Your task to perform on an android device: Open settings on Google Maps Image 0: 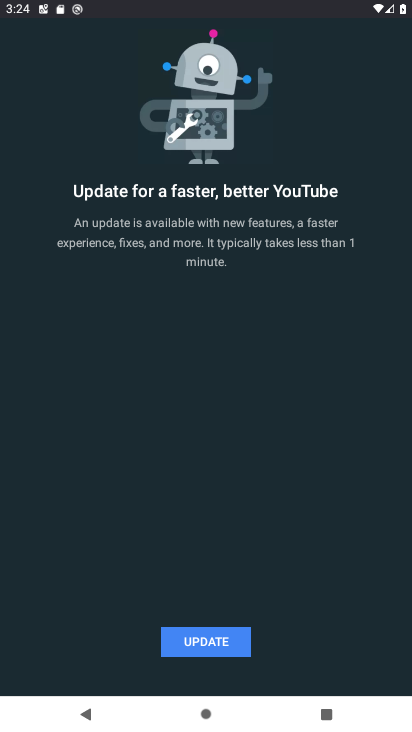
Step 0: press home button
Your task to perform on an android device: Open settings on Google Maps Image 1: 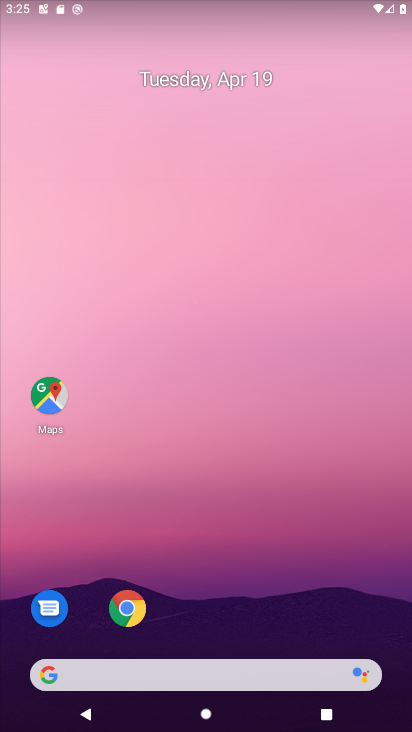
Step 1: drag from (264, 613) to (256, 130)
Your task to perform on an android device: Open settings on Google Maps Image 2: 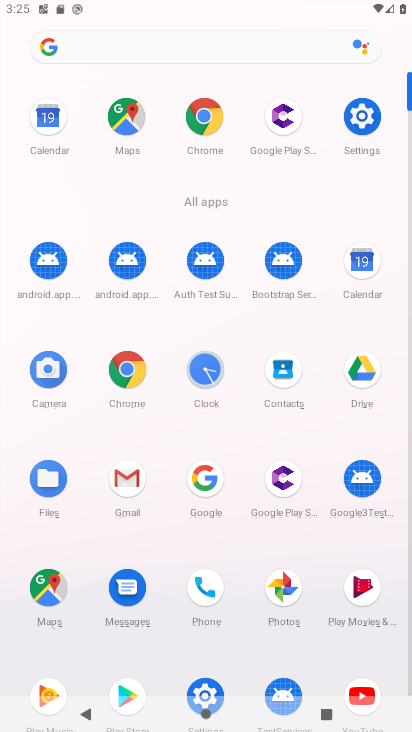
Step 2: click (52, 586)
Your task to perform on an android device: Open settings on Google Maps Image 3: 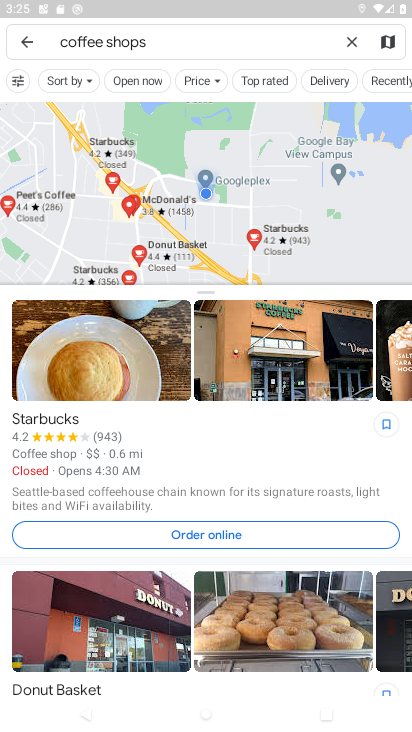
Step 3: click (20, 34)
Your task to perform on an android device: Open settings on Google Maps Image 4: 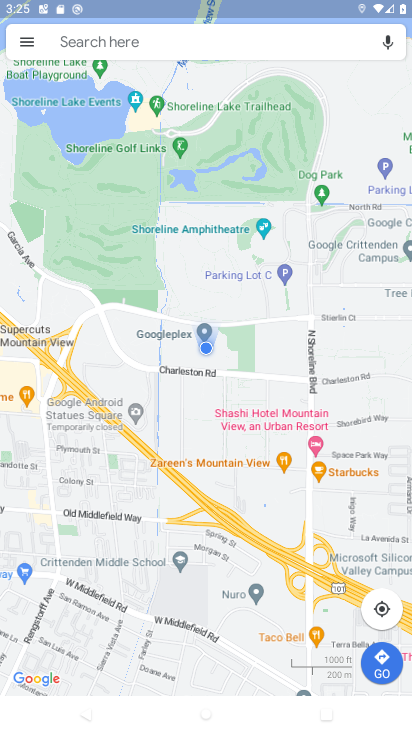
Step 4: click (25, 38)
Your task to perform on an android device: Open settings on Google Maps Image 5: 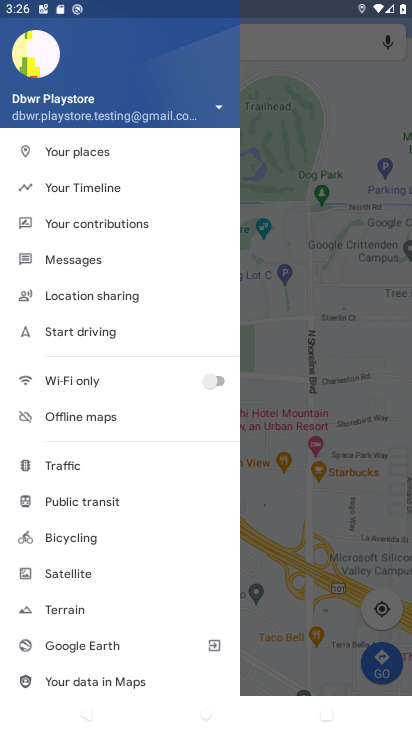
Step 5: drag from (83, 628) to (114, 277)
Your task to perform on an android device: Open settings on Google Maps Image 6: 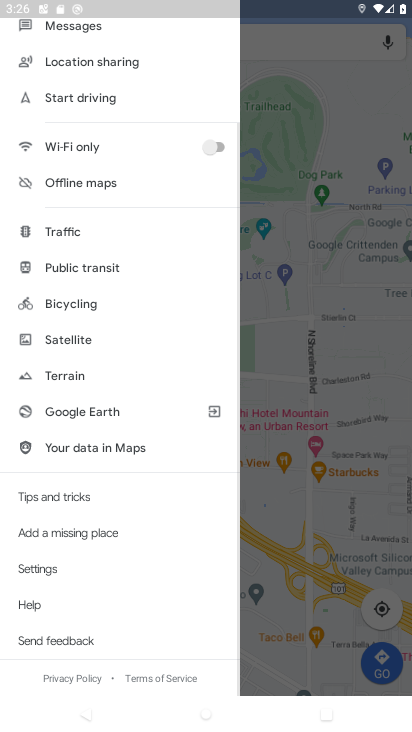
Step 6: click (47, 571)
Your task to perform on an android device: Open settings on Google Maps Image 7: 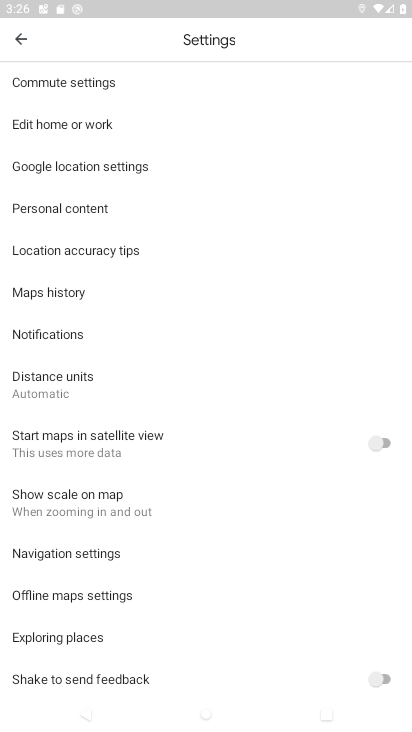
Step 7: task complete